Your task to perform on an android device: turn on translation in the chrome app Image 0: 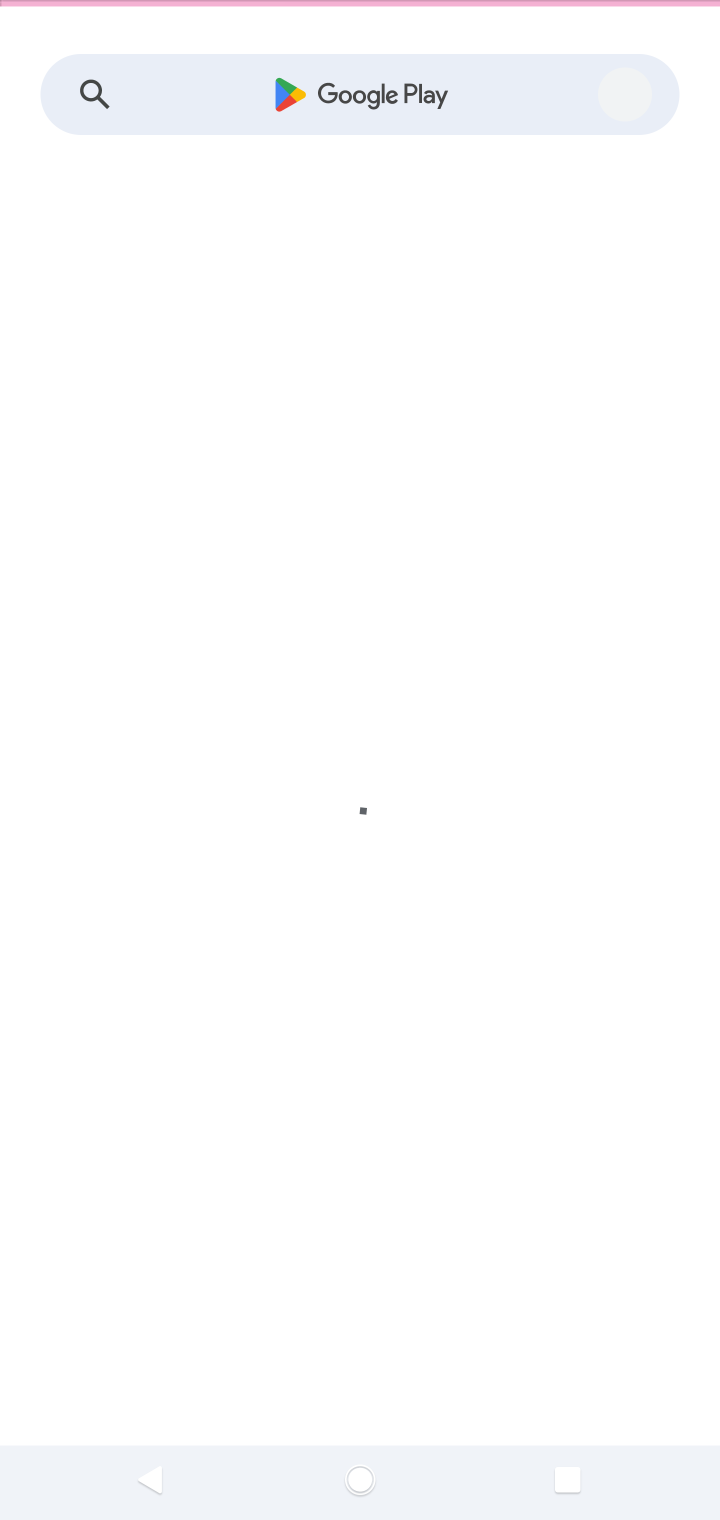
Step 0: press back button
Your task to perform on an android device: turn on translation in the chrome app Image 1: 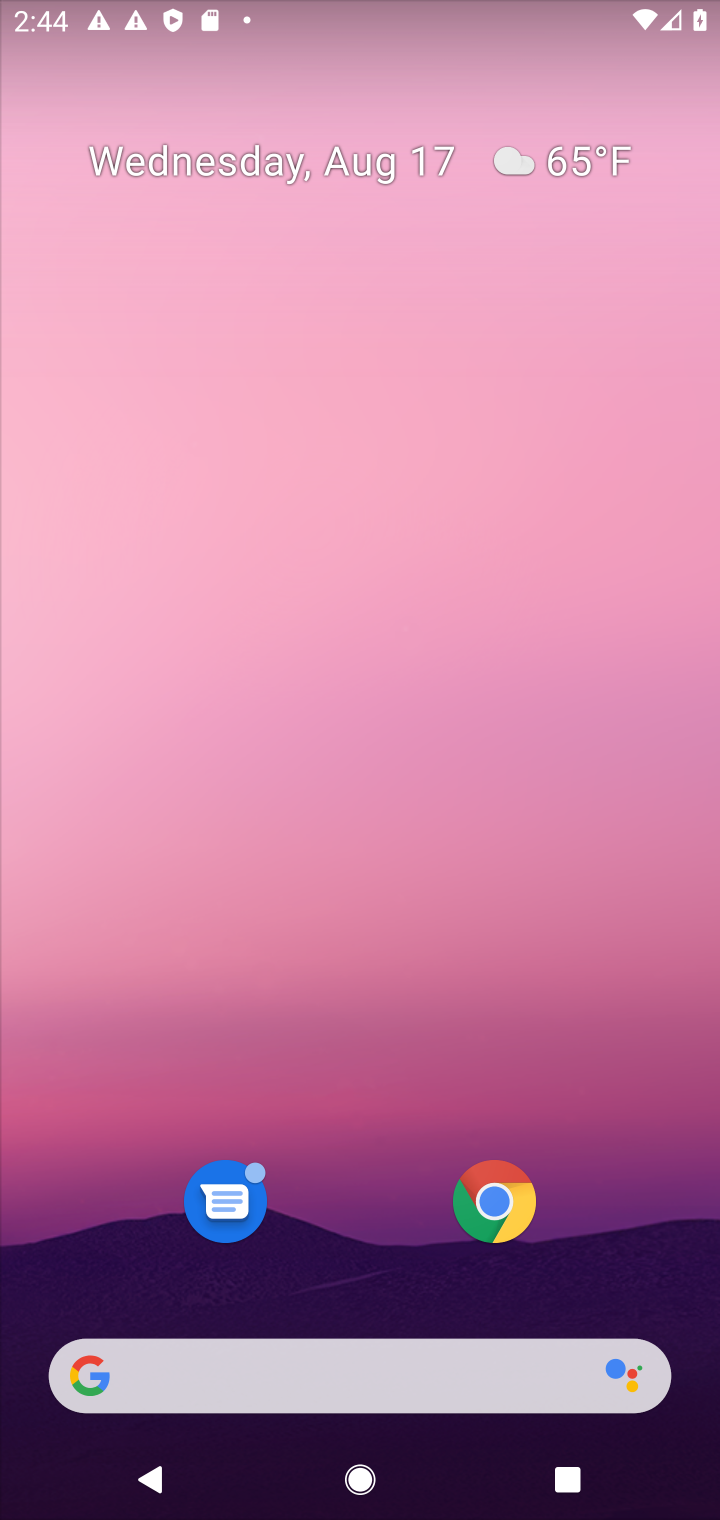
Step 1: press back button
Your task to perform on an android device: turn on translation in the chrome app Image 2: 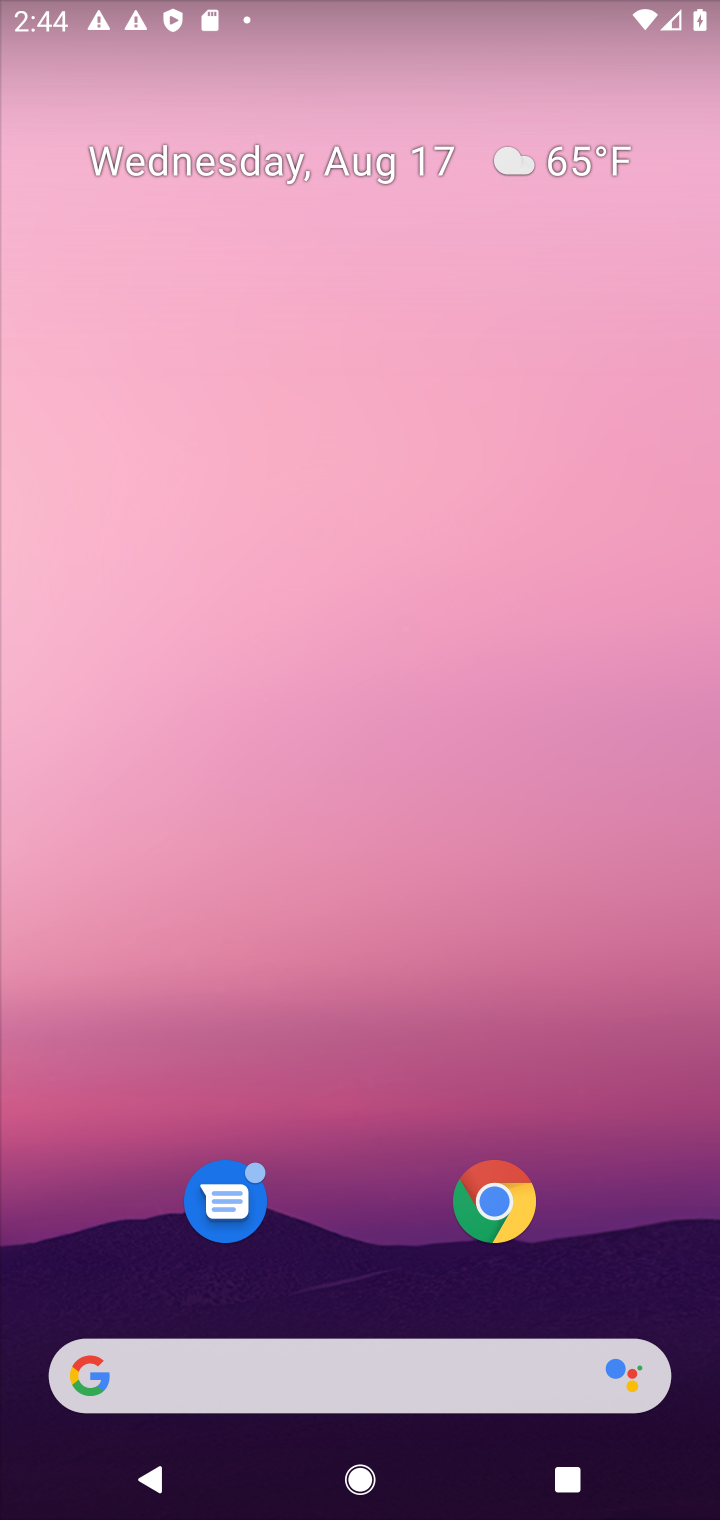
Step 2: click (514, 1196)
Your task to perform on an android device: turn on translation in the chrome app Image 3: 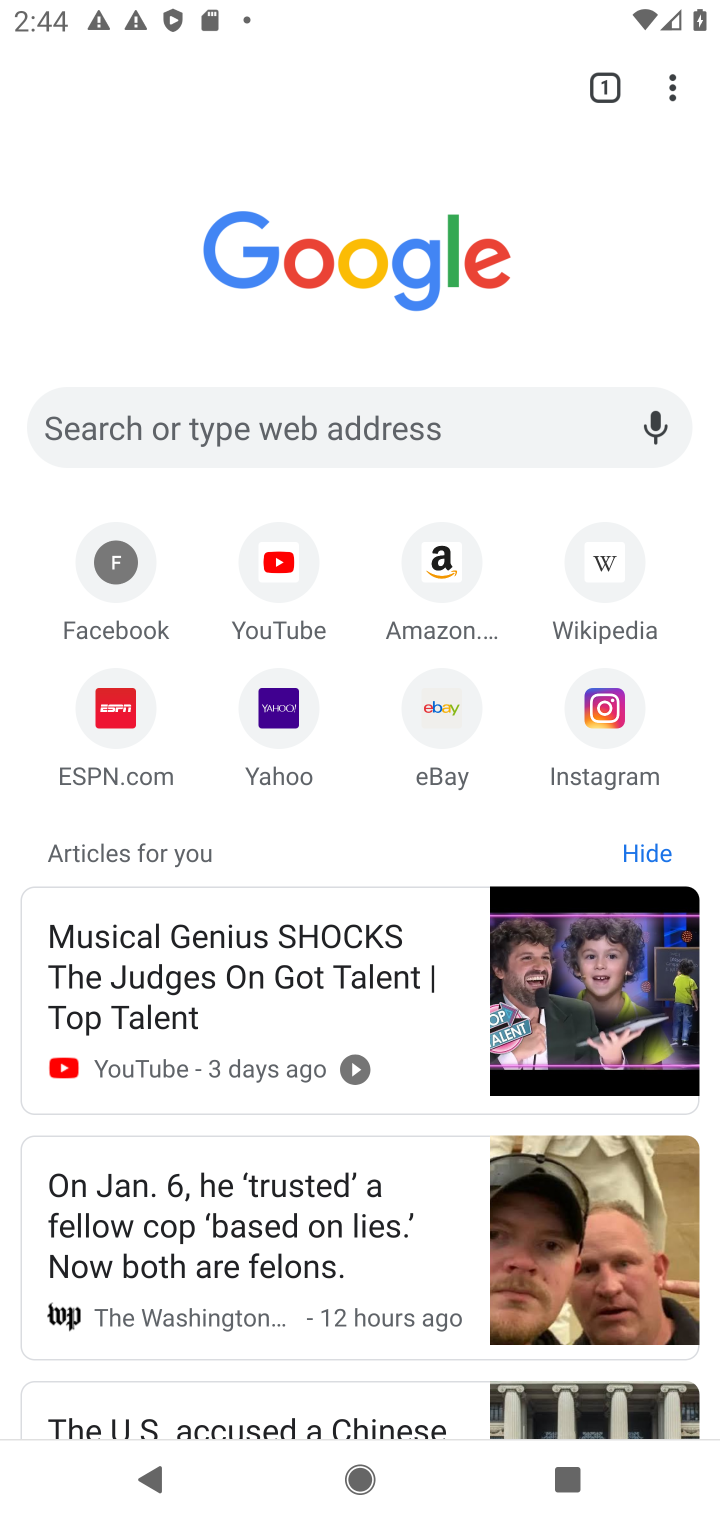
Step 3: drag from (678, 78) to (351, 751)
Your task to perform on an android device: turn on translation in the chrome app Image 4: 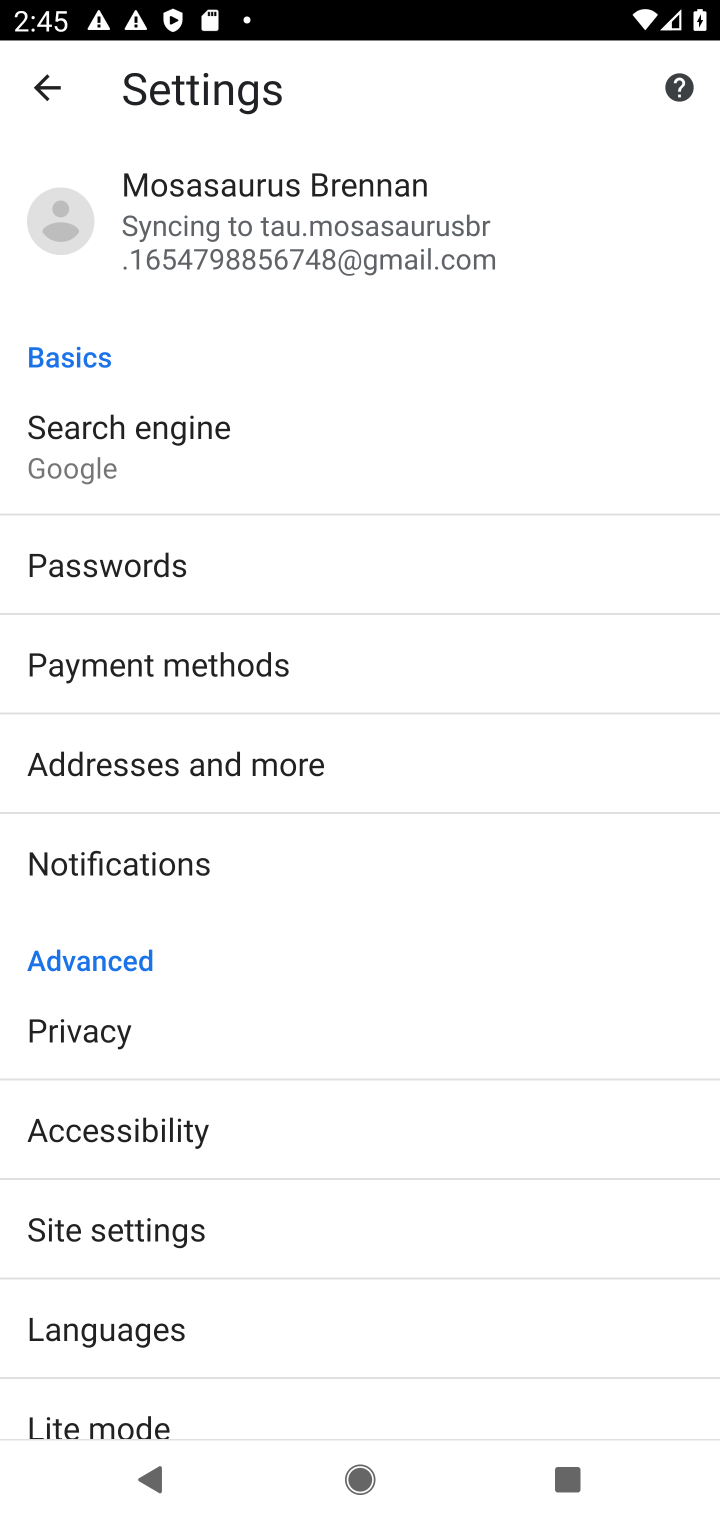
Step 4: click (151, 1341)
Your task to perform on an android device: turn on translation in the chrome app Image 5: 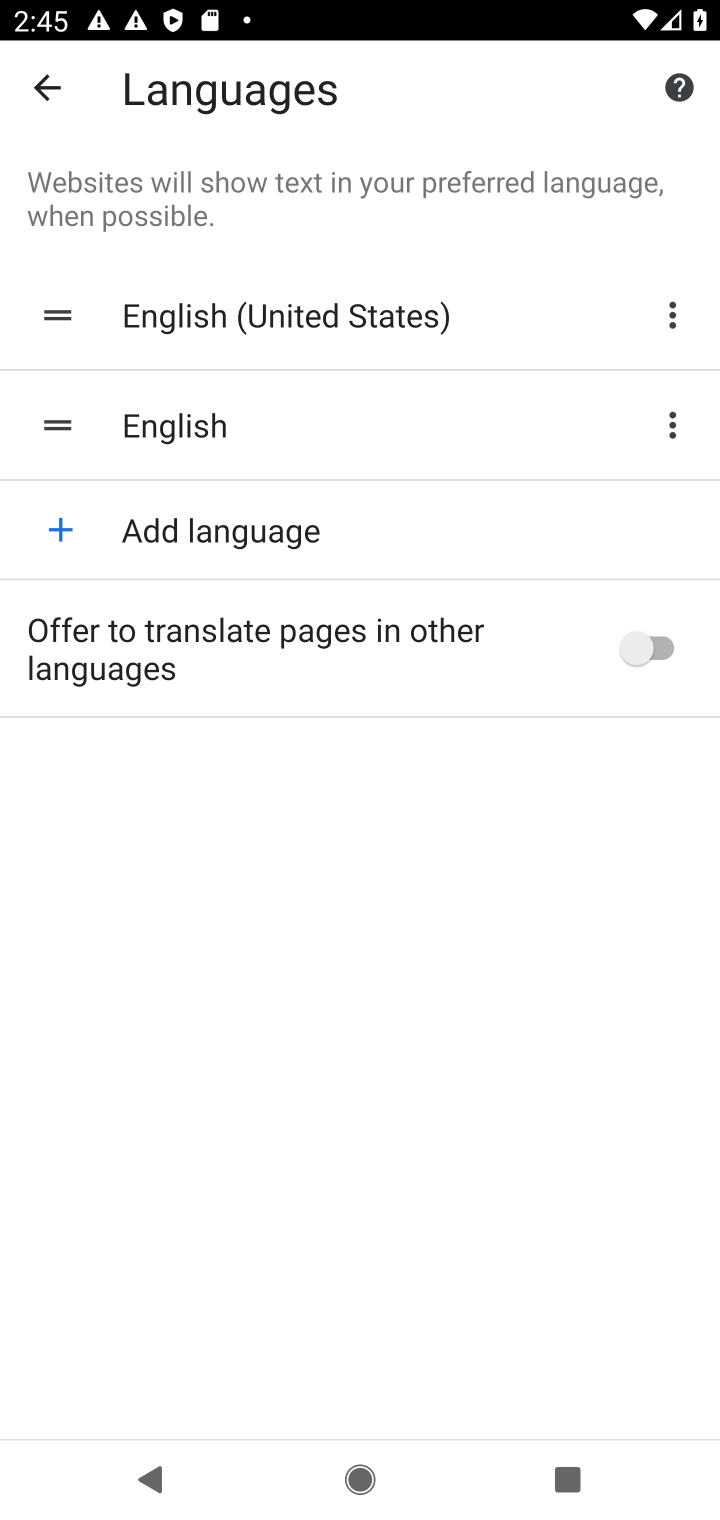
Step 5: click (605, 664)
Your task to perform on an android device: turn on translation in the chrome app Image 6: 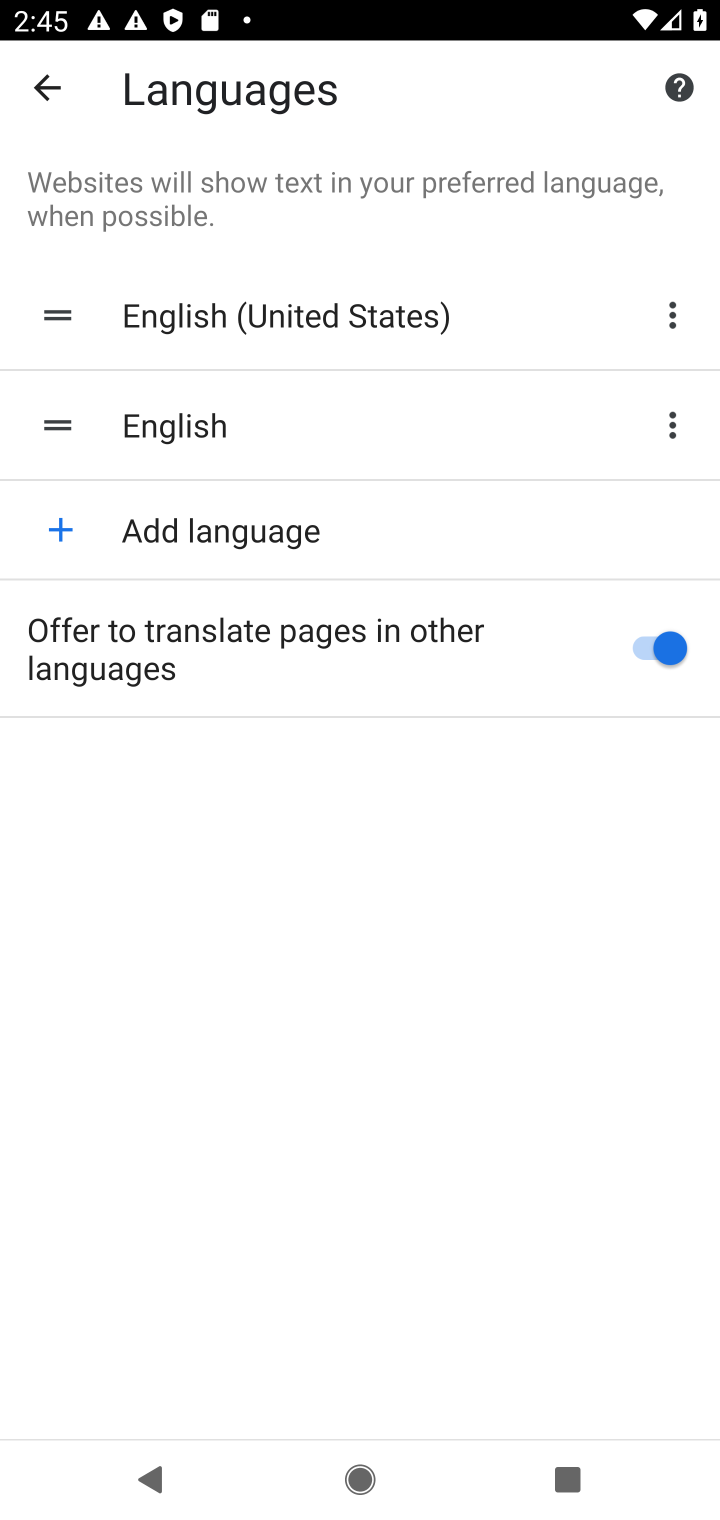
Step 6: task complete